Your task to perform on an android device: turn off wifi Image 0: 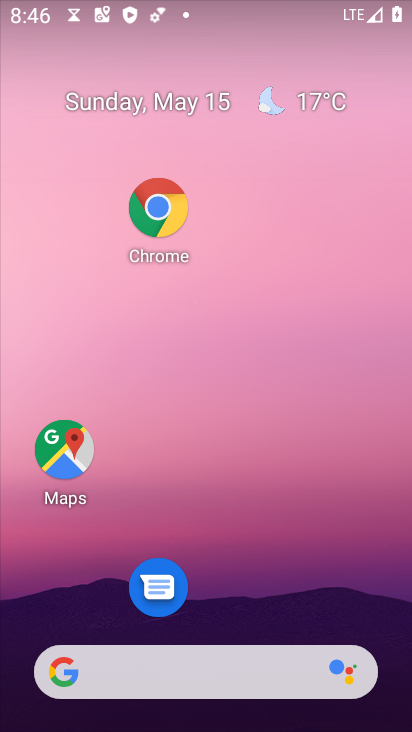
Step 0: drag from (362, 639) to (194, 170)
Your task to perform on an android device: turn off wifi Image 1: 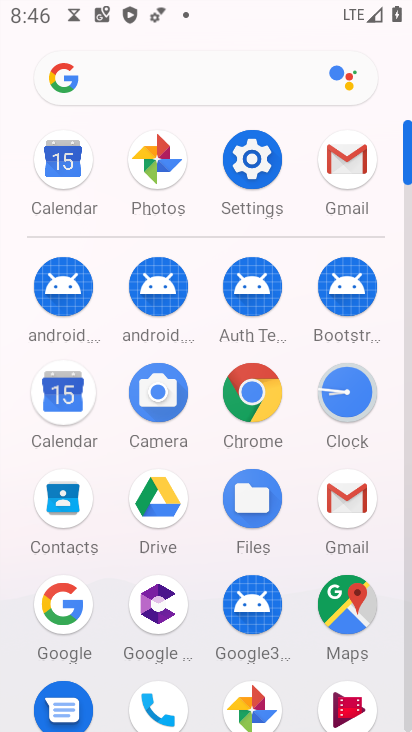
Step 1: click (255, 164)
Your task to perform on an android device: turn off wifi Image 2: 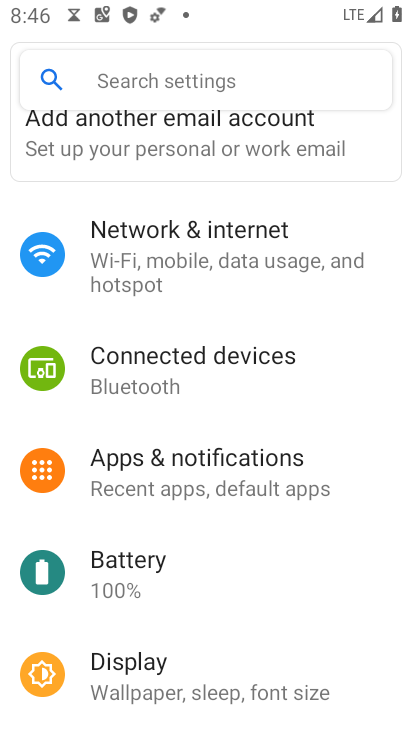
Step 2: click (175, 259)
Your task to perform on an android device: turn off wifi Image 3: 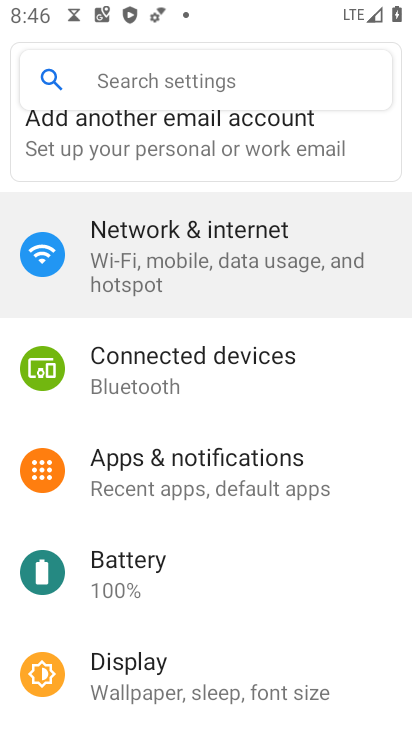
Step 3: click (175, 259)
Your task to perform on an android device: turn off wifi Image 4: 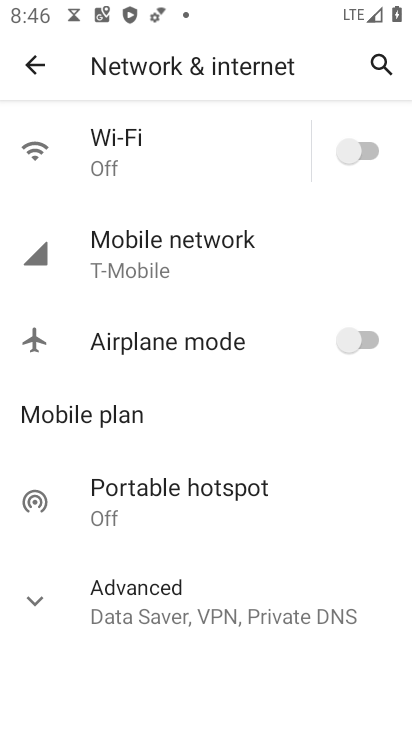
Step 4: click (340, 149)
Your task to perform on an android device: turn off wifi Image 5: 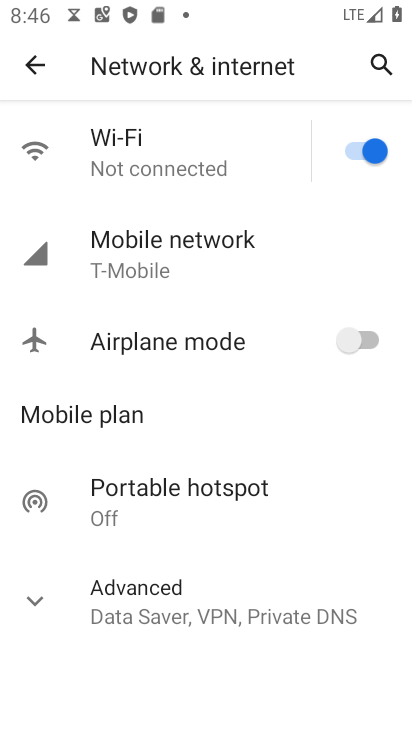
Step 5: click (367, 150)
Your task to perform on an android device: turn off wifi Image 6: 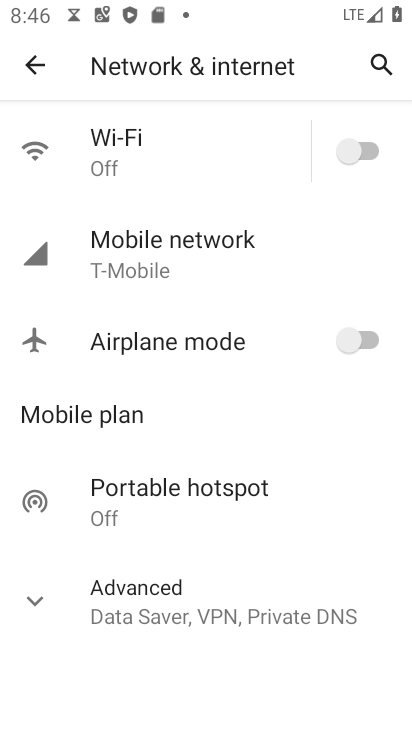
Step 6: task complete